Your task to perform on an android device: turn on the 24-hour format for clock Image 0: 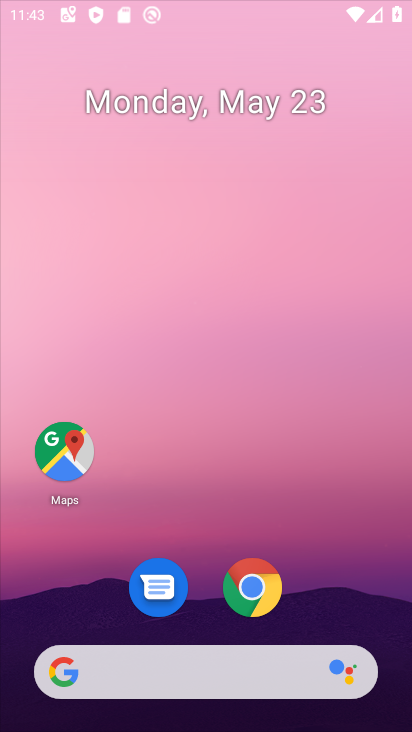
Step 0: drag from (378, 609) to (279, 223)
Your task to perform on an android device: turn on the 24-hour format for clock Image 1: 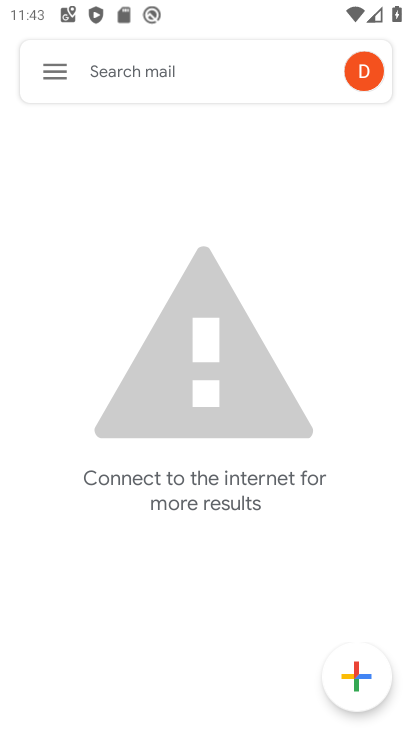
Step 1: press home button
Your task to perform on an android device: turn on the 24-hour format for clock Image 2: 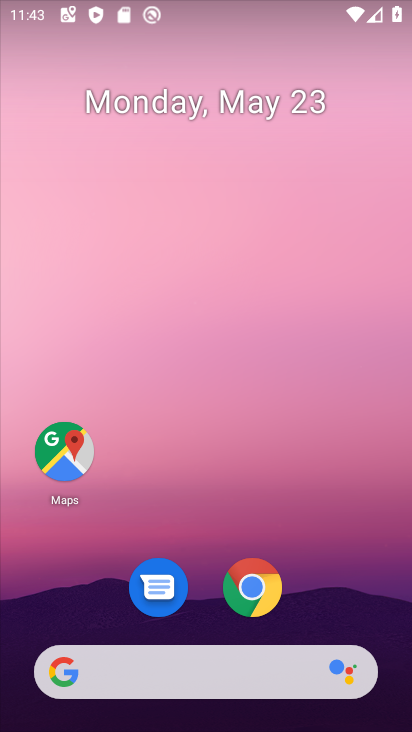
Step 2: drag from (347, 608) to (225, 182)
Your task to perform on an android device: turn on the 24-hour format for clock Image 3: 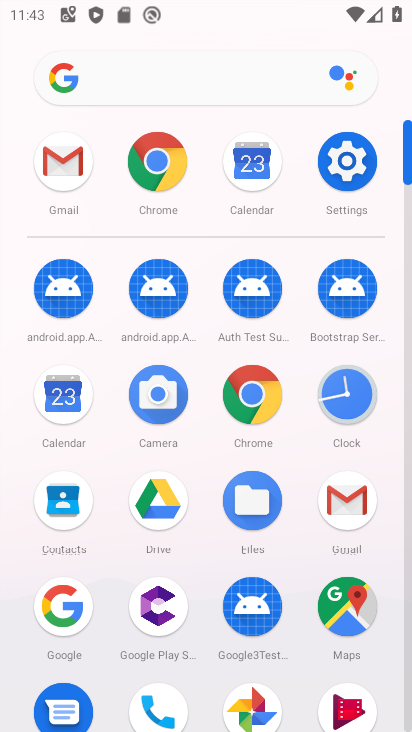
Step 3: click (357, 397)
Your task to perform on an android device: turn on the 24-hour format for clock Image 4: 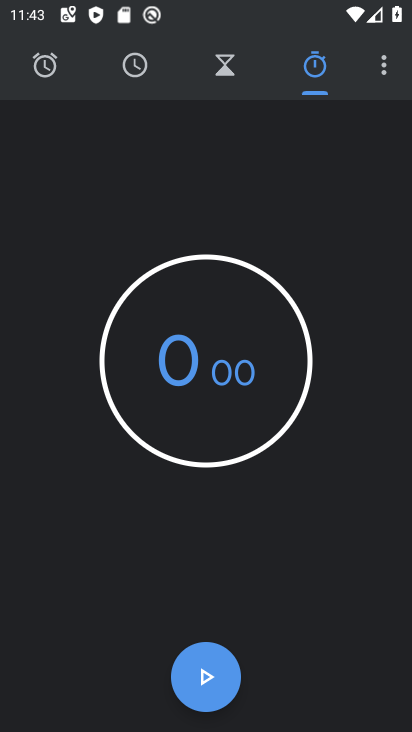
Step 4: click (380, 77)
Your task to perform on an android device: turn on the 24-hour format for clock Image 5: 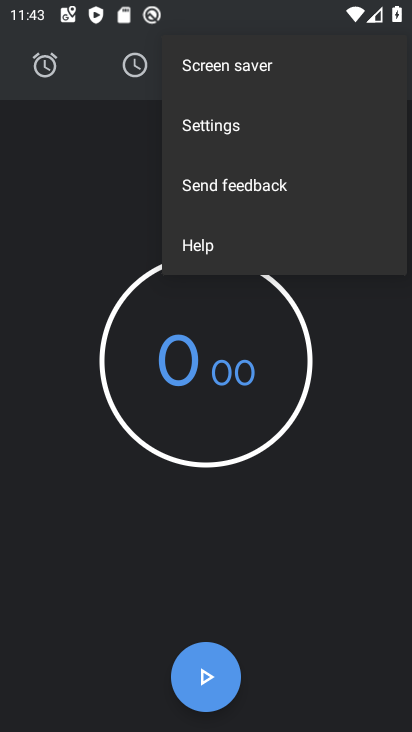
Step 5: click (339, 115)
Your task to perform on an android device: turn on the 24-hour format for clock Image 6: 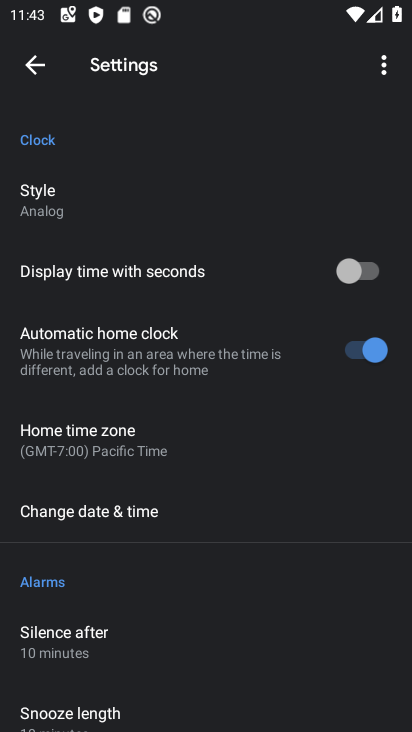
Step 6: drag from (236, 690) to (215, 307)
Your task to perform on an android device: turn on the 24-hour format for clock Image 7: 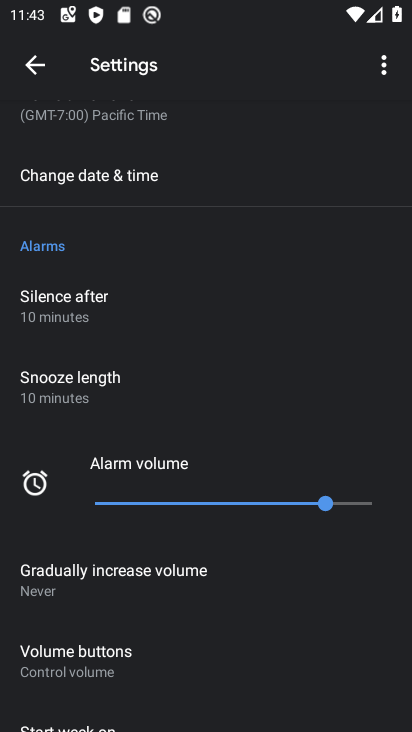
Step 7: click (217, 185)
Your task to perform on an android device: turn on the 24-hour format for clock Image 8: 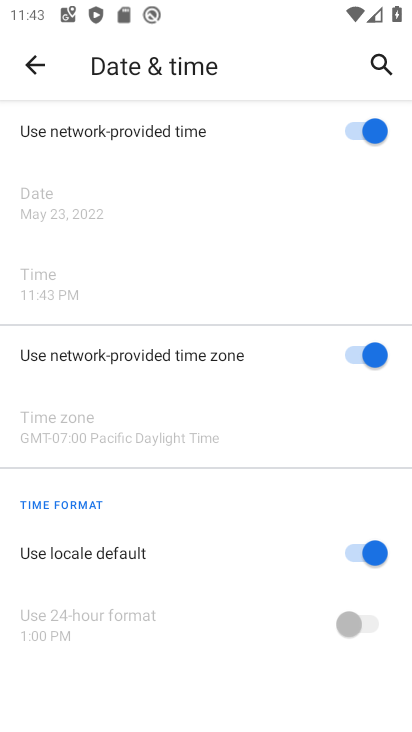
Step 8: click (366, 557)
Your task to perform on an android device: turn on the 24-hour format for clock Image 9: 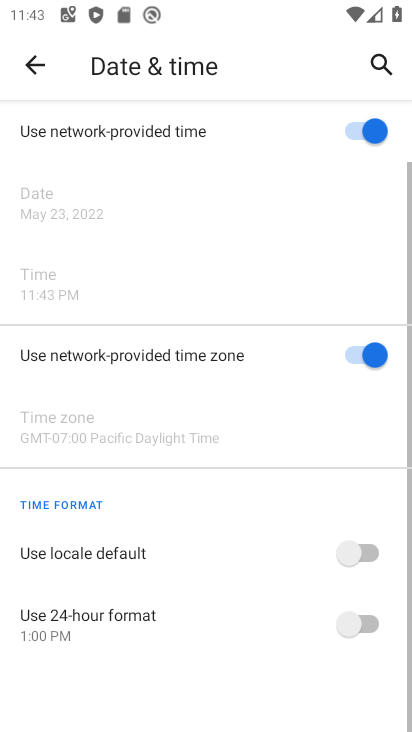
Step 9: click (364, 632)
Your task to perform on an android device: turn on the 24-hour format for clock Image 10: 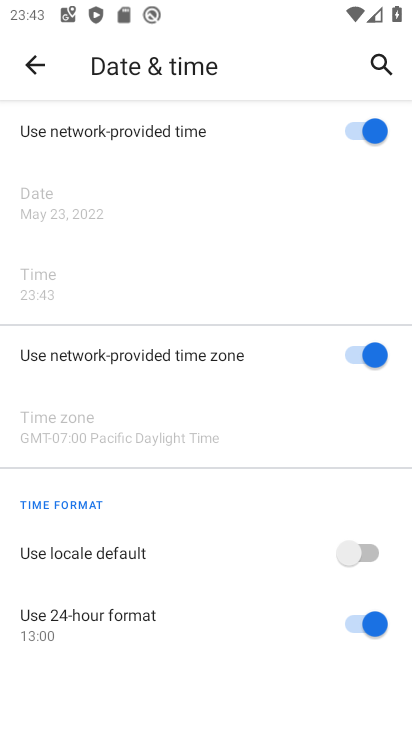
Step 10: task complete